Your task to perform on an android device: open a bookmark in the chrome app Image 0: 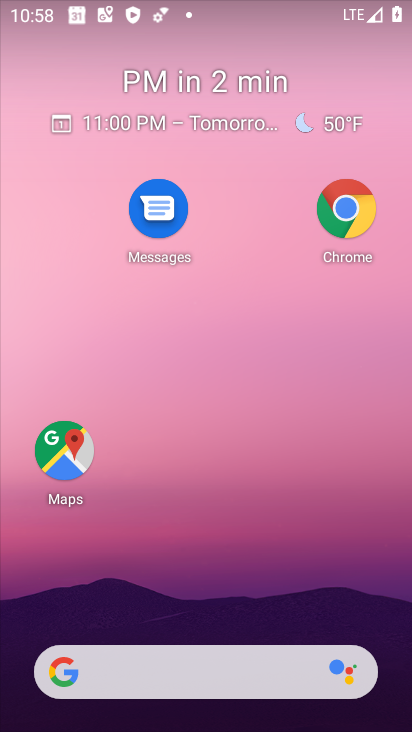
Step 0: drag from (215, 621) to (192, 22)
Your task to perform on an android device: open a bookmark in the chrome app Image 1: 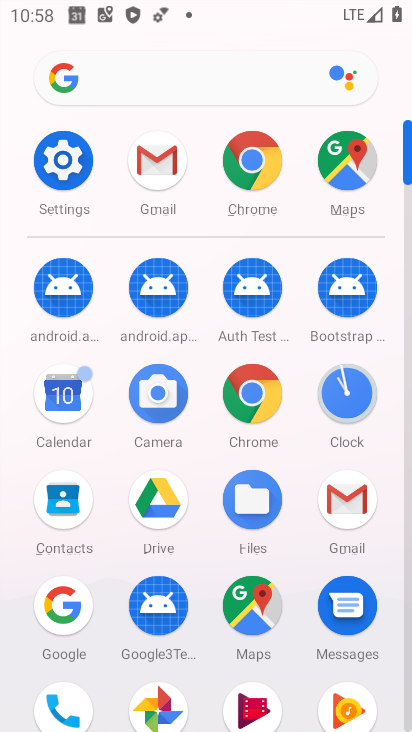
Step 1: click (251, 403)
Your task to perform on an android device: open a bookmark in the chrome app Image 2: 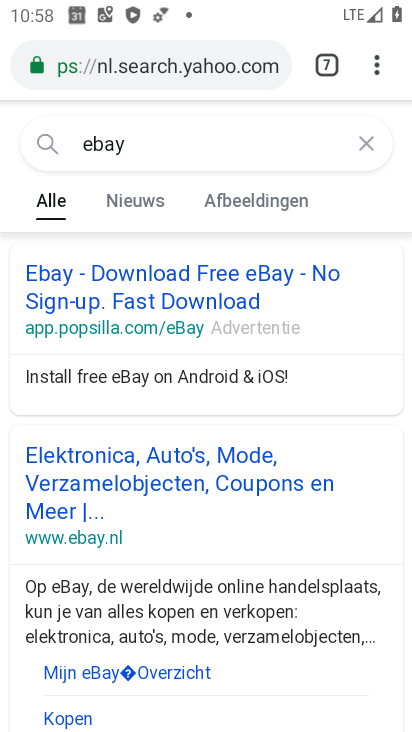
Step 2: click (373, 59)
Your task to perform on an android device: open a bookmark in the chrome app Image 3: 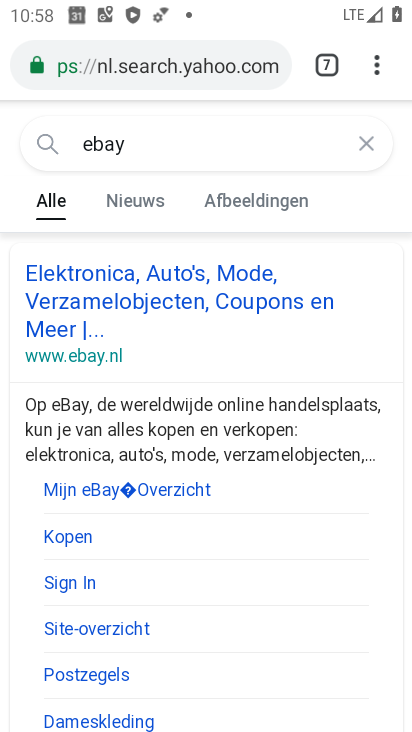
Step 3: click (370, 60)
Your task to perform on an android device: open a bookmark in the chrome app Image 4: 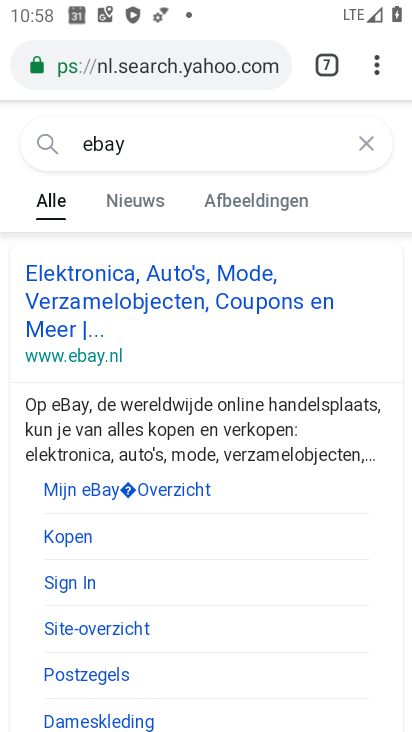
Step 4: click (369, 62)
Your task to perform on an android device: open a bookmark in the chrome app Image 5: 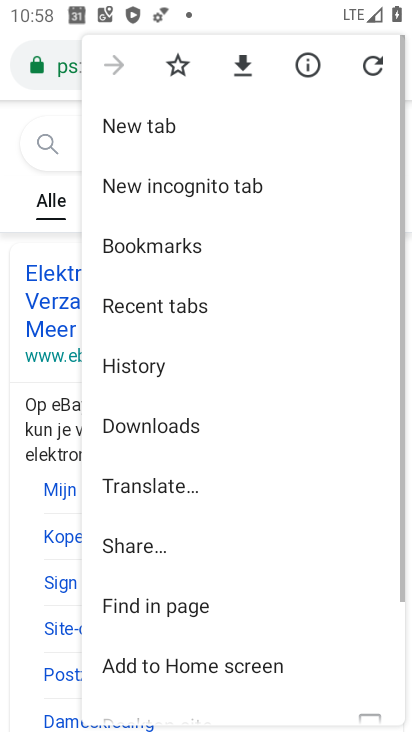
Step 5: click (164, 244)
Your task to perform on an android device: open a bookmark in the chrome app Image 6: 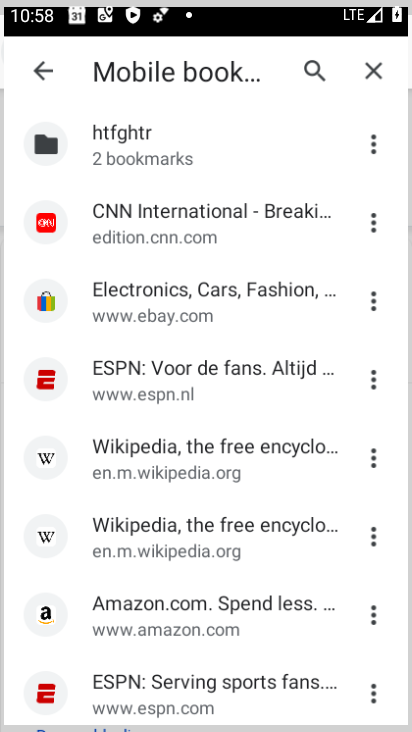
Step 6: task complete